Your task to perform on an android device: Open Youtube and go to the subscriptions tab Image 0: 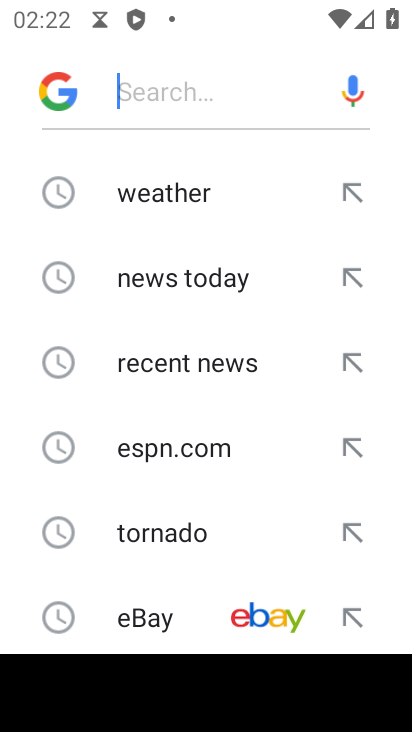
Step 0: press home button
Your task to perform on an android device: Open Youtube and go to the subscriptions tab Image 1: 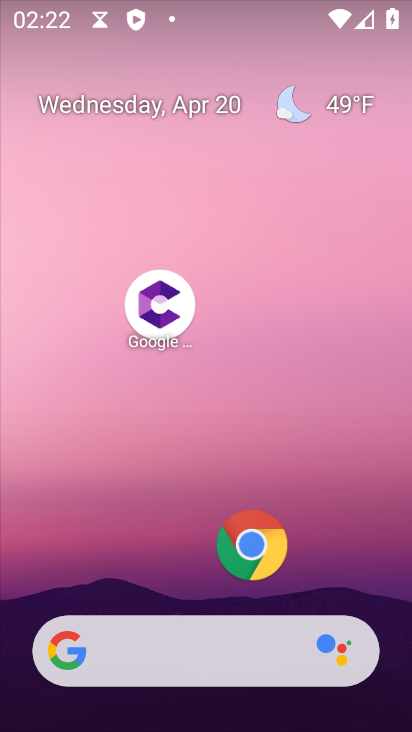
Step 1: drag from (151, 558) to (249, 64)
Your task to perform on an android device: Open Youtube and go to the subscriptions tab Image 2: 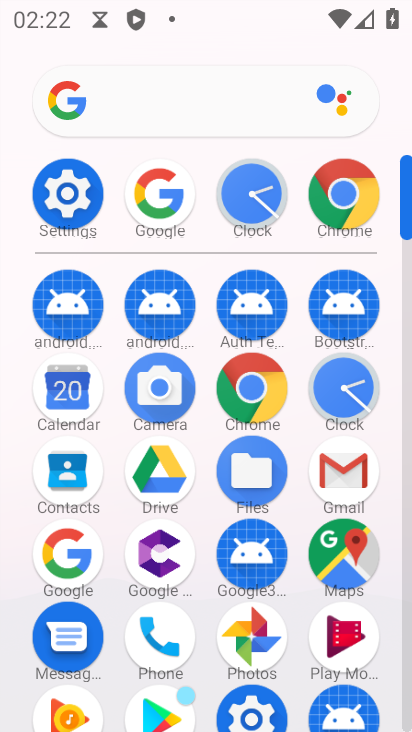
Step 2: drag from (204, 522) to (239, 71)
Your task to perform on an android device: Open Youtube and go to the subscriptions tab Image 3: 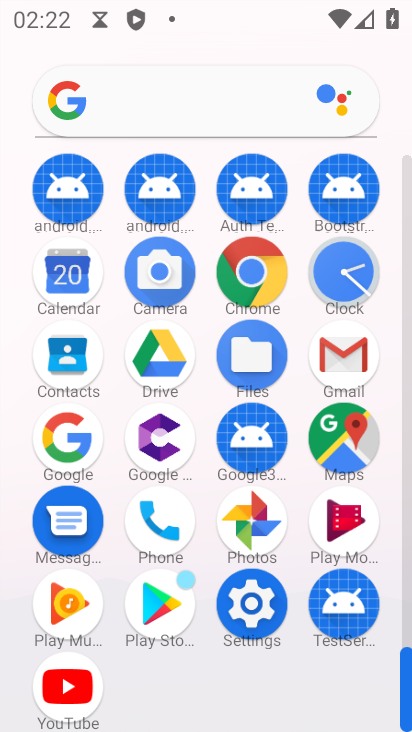
Step 3: click (71, 688)
Your task to perform on an android device: Open Youtube and go to the subscriptions tab Image 4: 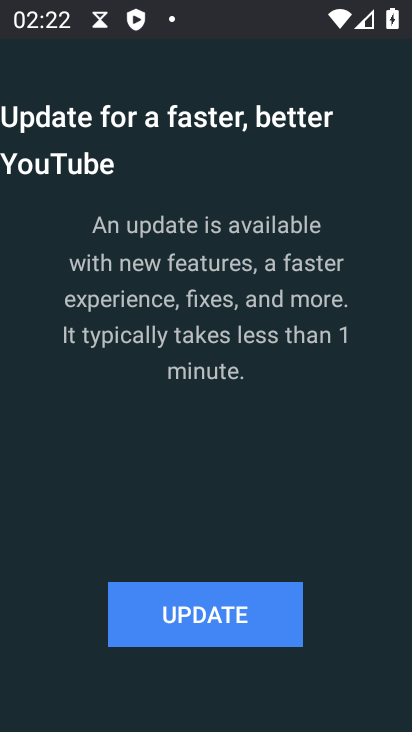
Step 4: click (174, 613)
Your task to perform on an android device: Open Youtube and go to the subscriptions tab Image 5: 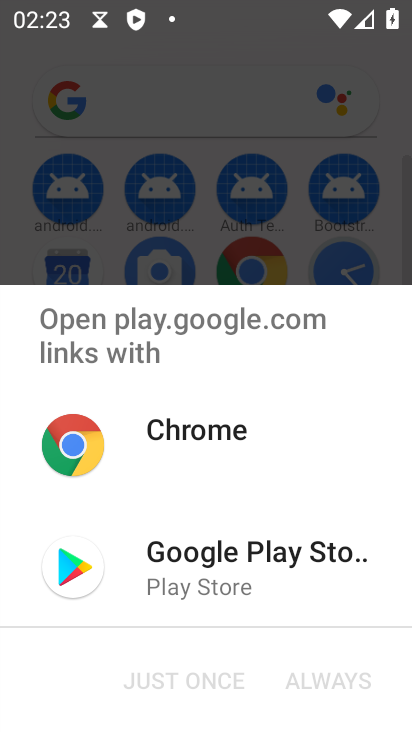
Step 5: click (207, 557)
Your task to perform on an android device: Open Youtube and go to the subscriptions tab Image 6: 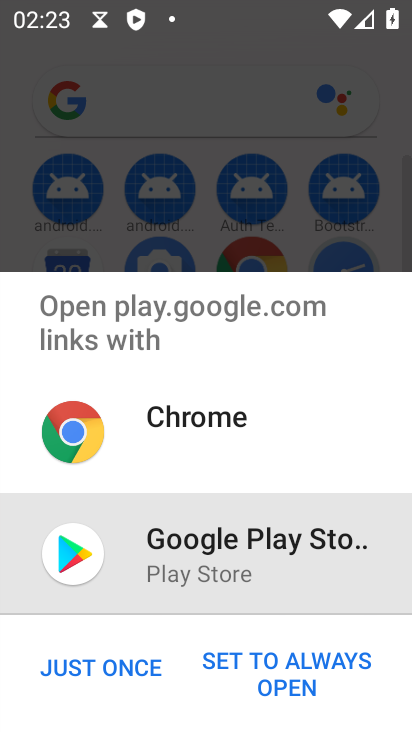
Step 6: click (120, 665)
Your task to perform on an android device: Open Youtube and go to the subscriptions tab Image 7: 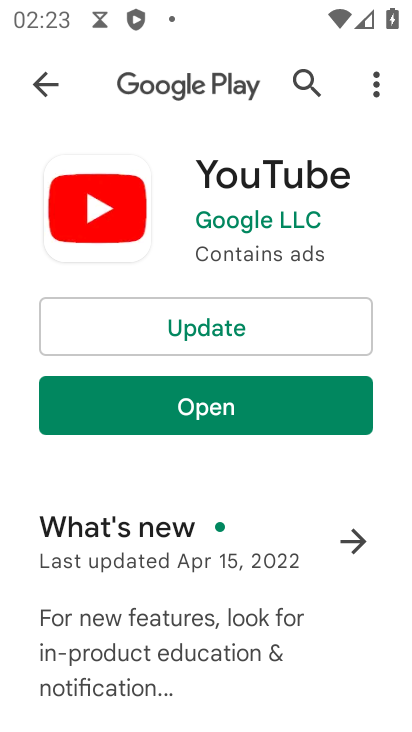
Step 7: click (251, 322)
Your task to perform on an android device: Open Youtube and go to the subscriptions tab Image 8: 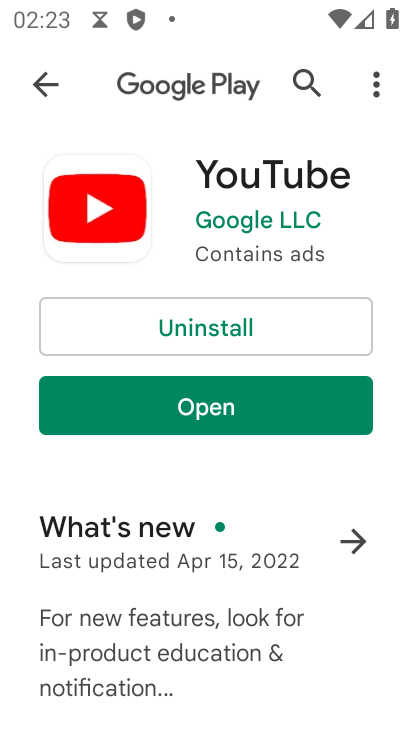
Step 8: click (216, 405)
Your task to perform on an android device: Open Youtube and go to the subscriptions tab Image 9: 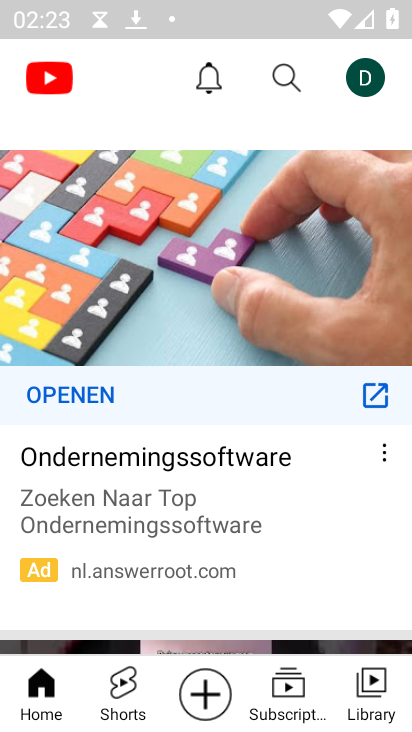
Step 9: click (293, 686)
Your task to perform on an android device: Open Youtube and go to the subscriptions tab Image 10: 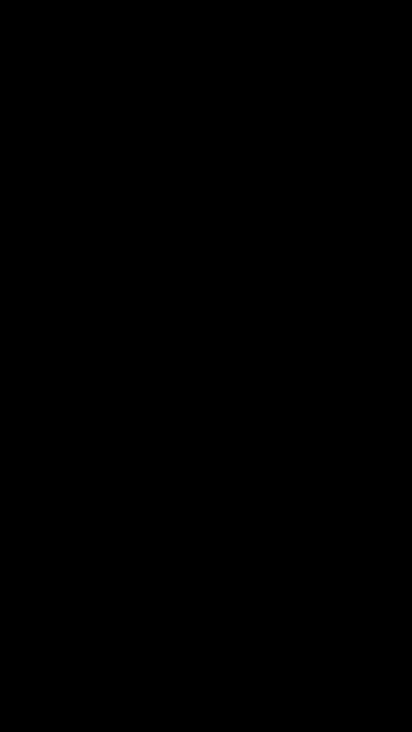
Step 10: task complete